Your task to perform on an android device: turn off picture-in-picture Image 0: 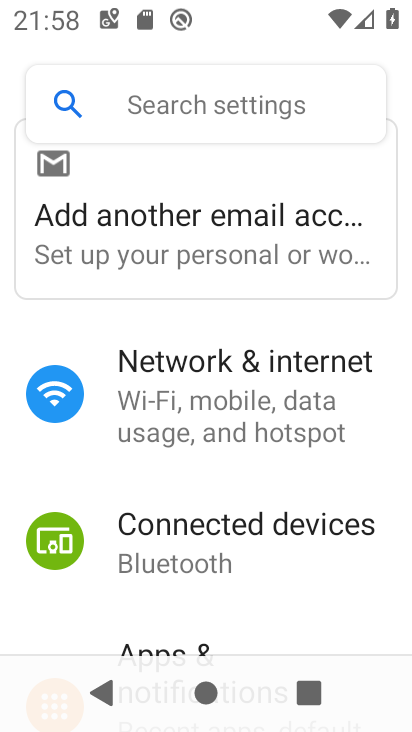
Step 0: press home button
Your task to perform on an android device: turn off picture-in-picture Image 1: 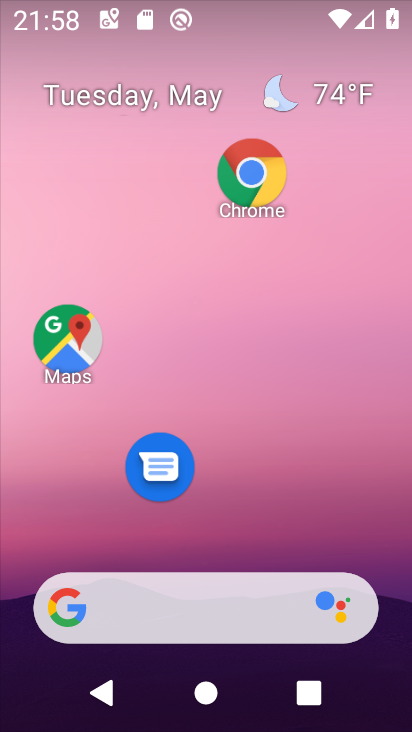
Step 1: drag from (363, 487) to (363, 140)
Your task to perform on an android device: turn off picture-in-picture Image 2: 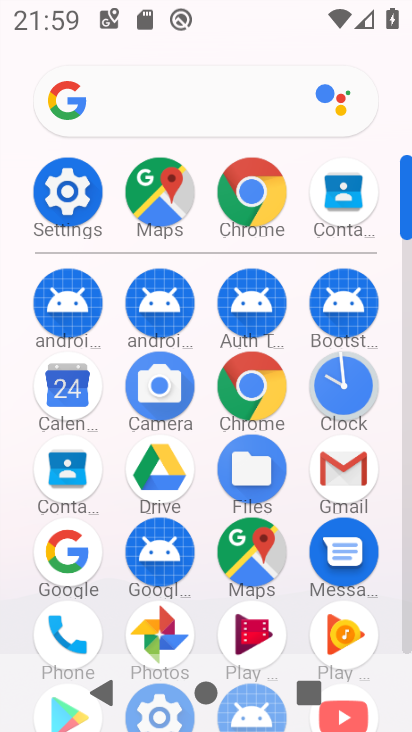
Step 2: click (52, 190)
Your task to perform on an android device: turn off picture-in-picture Image 3: 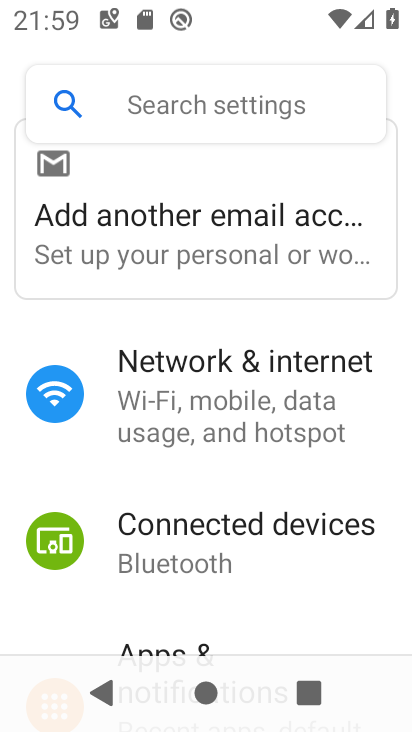
Step 3: drag from (283, 560) to (344, 252)
Your task to perform on an android device: turn off picture-in-picture Image 4: 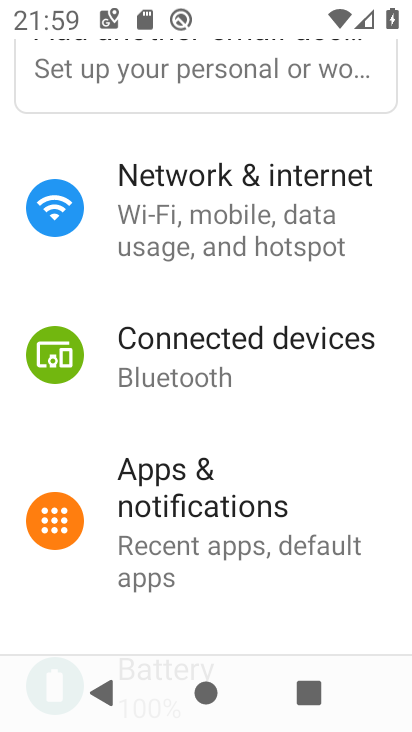
Step 4: drag from (297, 560) to (320, 245)
Your task to perform on an android device: turn off picture-in-picture Image 5: 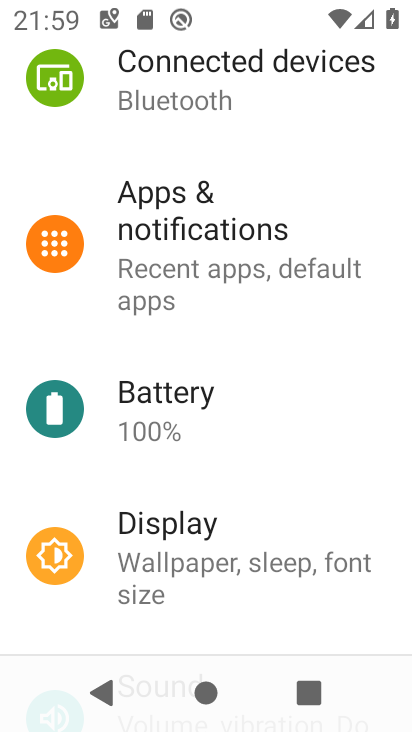
Step 5: drag from (263, 460) to (293, 186)
Your task to perform on an android device: turn off picture-in-picture Image 6: 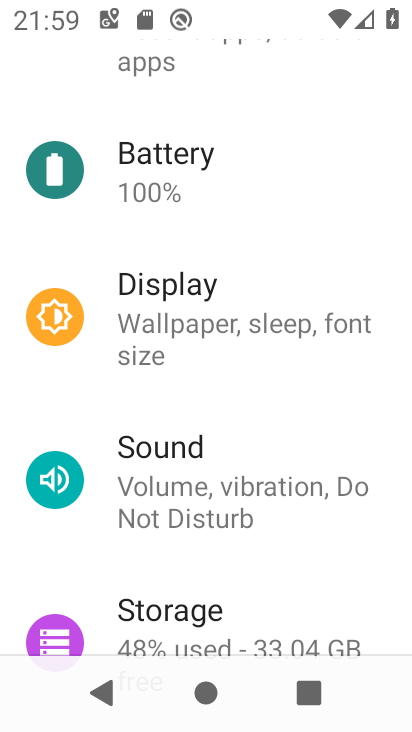
Step 6: drag from (244, 457) to (293, 213)
Your task to perform on an android device: turn off picture-in-picture Image 7: 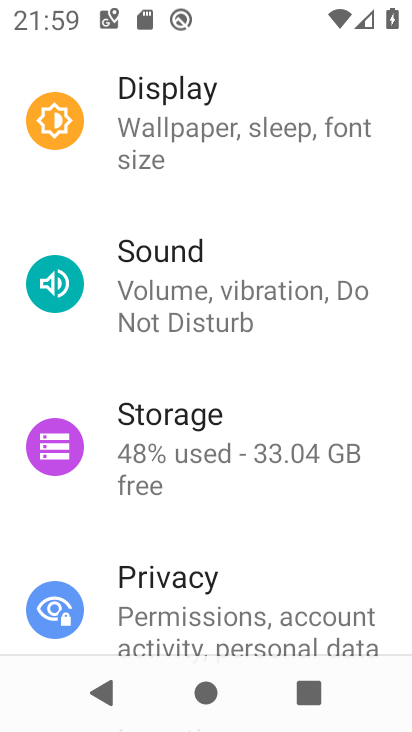
Step 7: drag from (261, 68) to (172, 597)
Your task to perform on an android device: turn off picture-in-picture Image 8: 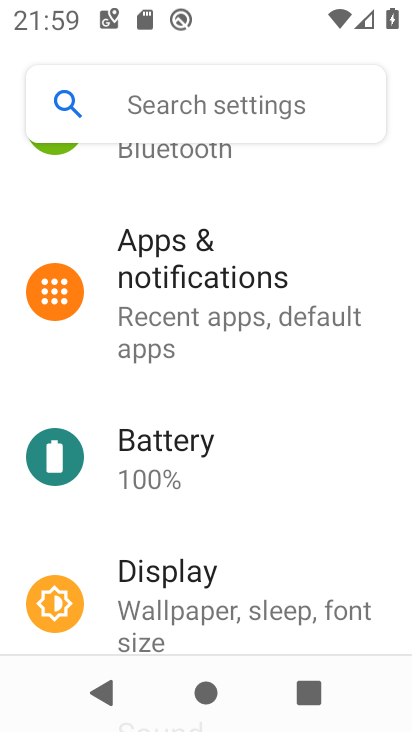
Step 8: click (177, 297)
Your task to perform on an android device: turn off picture-in-picture Image 9: 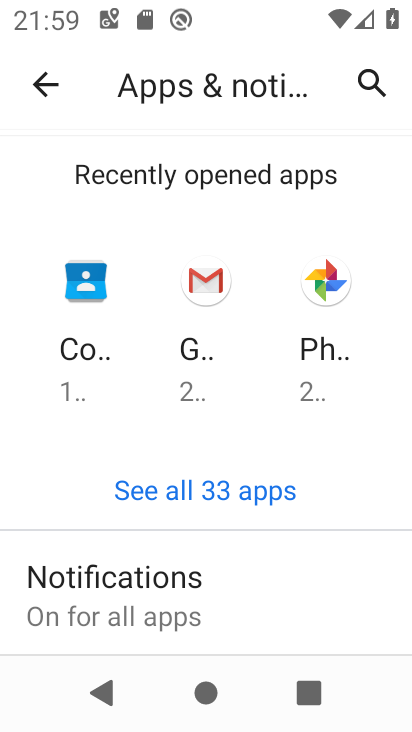
Step 9: drag from (246, 629) to (318, 221)
Your task to perform on an android device: turn off picture-in-picture Image 10: 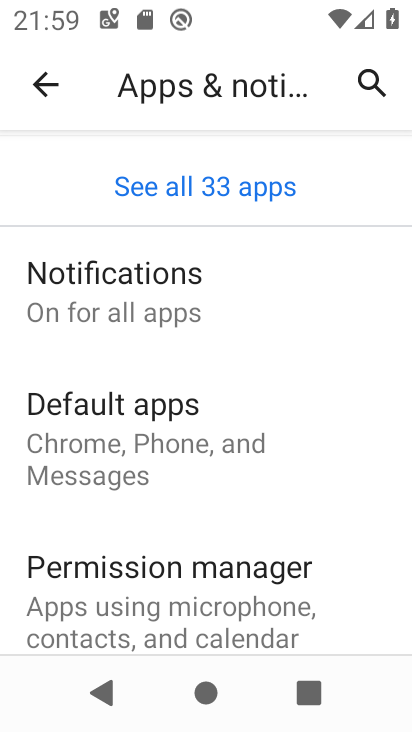
Step 10: drag from (254, 592) to (284, 173)
Your task to perform on an android device: turn off picture-in-picture Image 11: 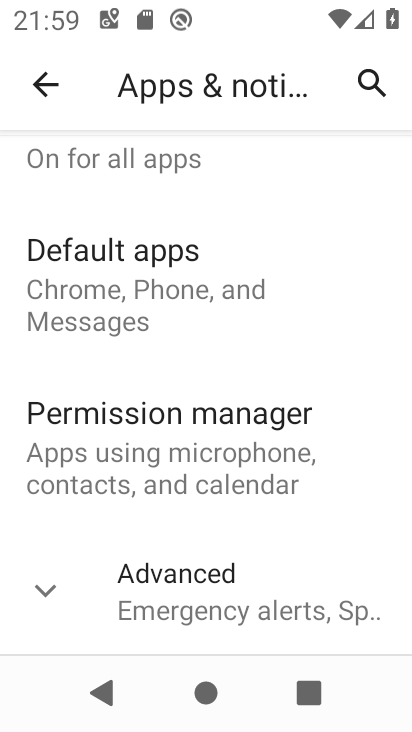
Step 11: click (226, 597)
Your task to perform on an android device: turn off picture-in-picture Image 12: 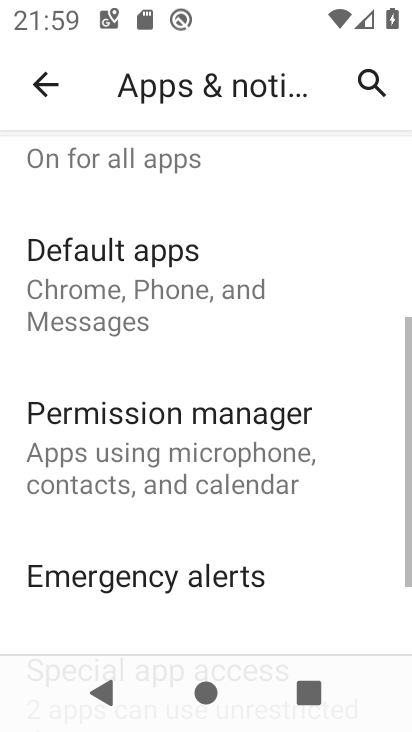
Step 12: drag from (225, 595) to (279, 217)
Your task to perform on an android device: turn off picture-in-picture Image 13: 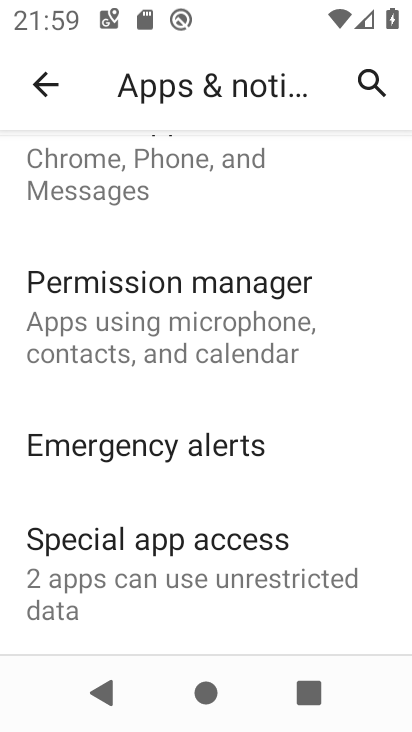
Step 13: click (203, 585)
Your task to perform on an android device: turn off picture-in-picture Image 14: 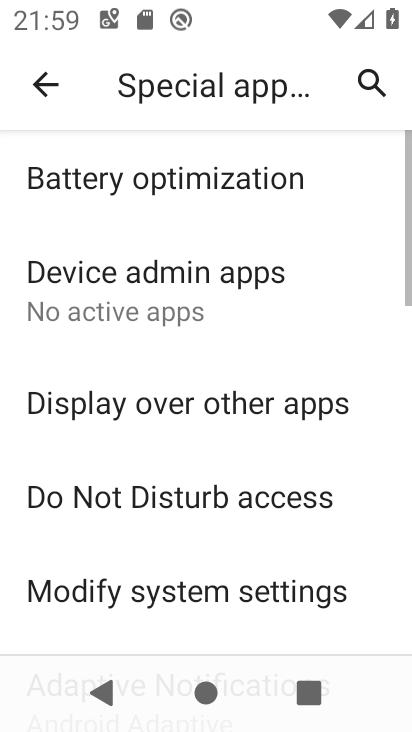
Step 14: drag from (201, 577) to (276, 180)
Your task to perform on an android device: turn off picture-in-picture Image 15: 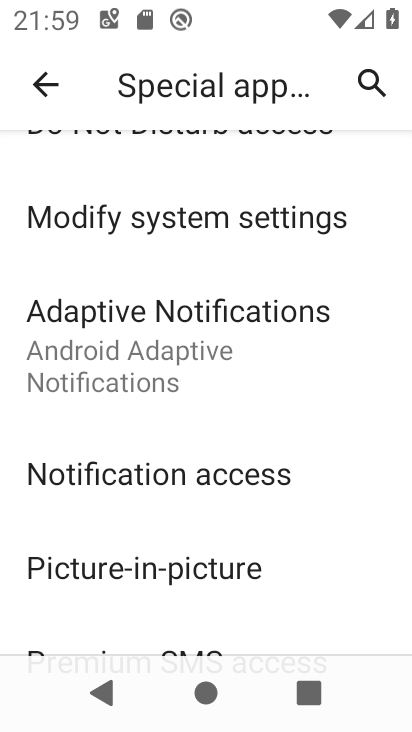
Step 15: click (153, 575)
Your task to perform on an android device: turn off picture-in-picture Image 16: 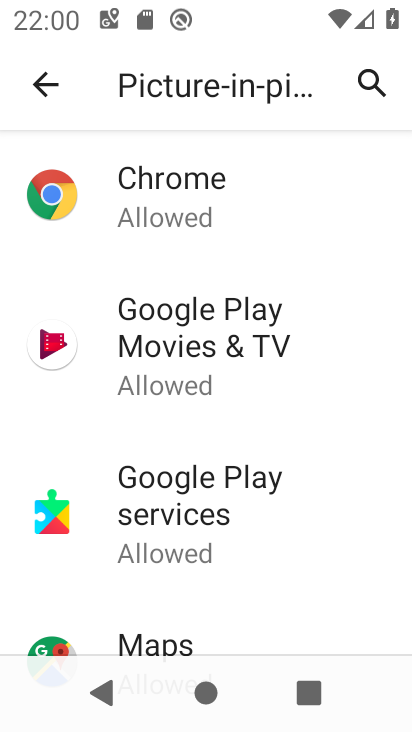
Step 16: task complete